Your task to perform on an android device: open app "NewsBreak: Local News & Alerts" Image 0: 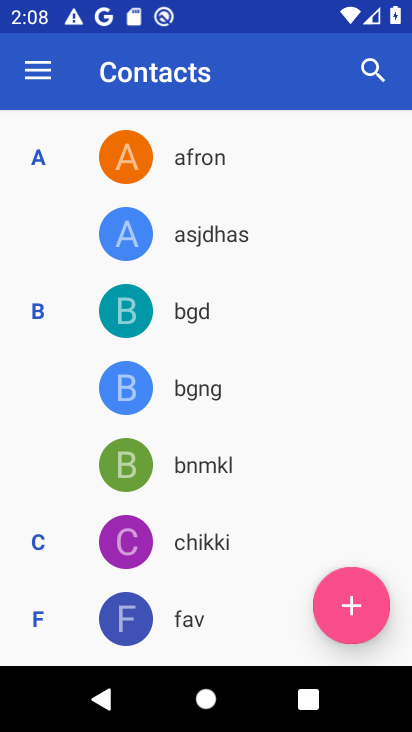
Step 0: press home button
Your task to perform on an android device: open app "NewsBreak: Local News & Alerts" Image 1: 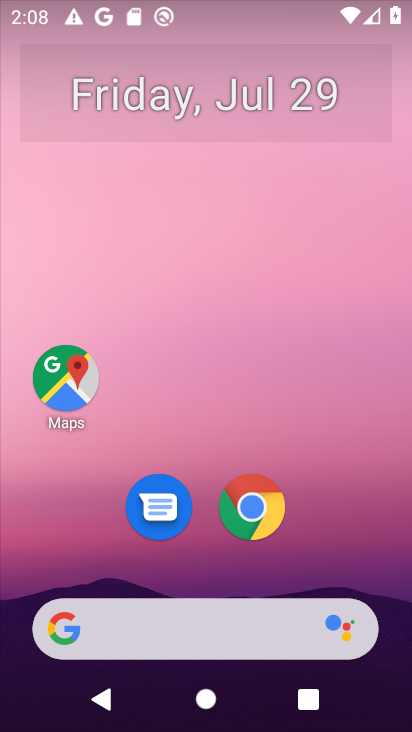
Step 1: drag from (208, 569) to (216, 192)
Your task to perform on an android device: open app "NewsBreak: Local News & Alerts" Image 2: 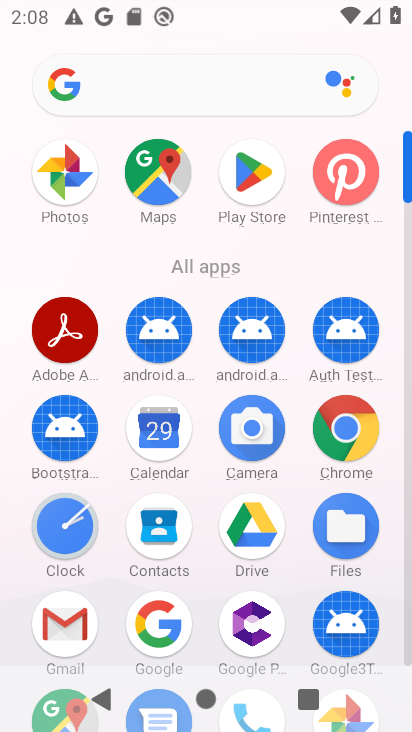
Step 2: click (243, 185)
Your task to perform on an android device: open app "NewsBreak: Local News & Alerts" Image 3: 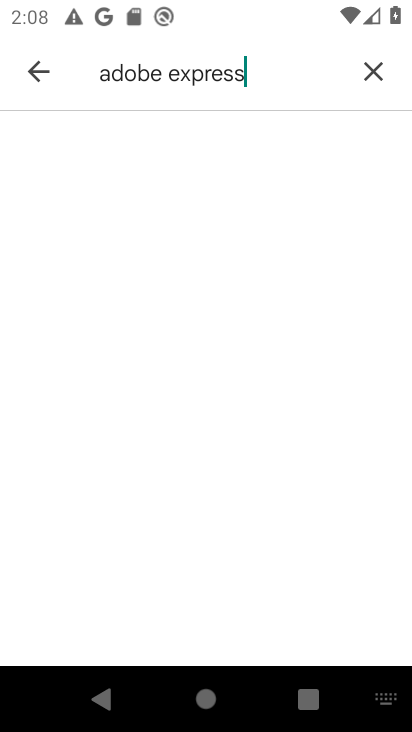
Step 3: click (368, 72)
Your task to perform on an android device: open app "NewsBreak: Local News & Alerts" Image 4: 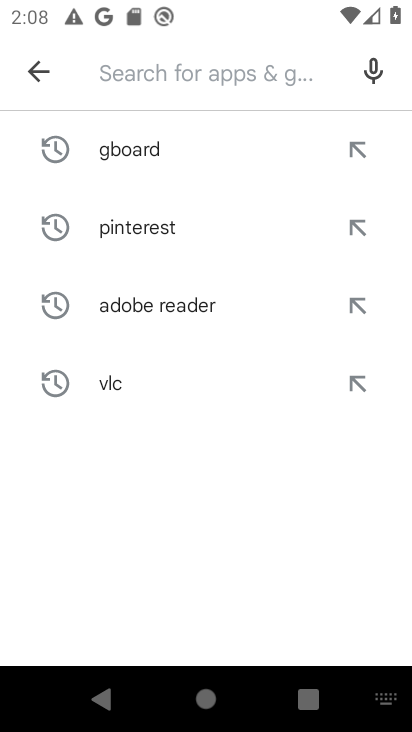
Step 4: click (52, 82)
Your task to perform on an android device: open app "NewsBreak: Local News & Alerts" Image 5: 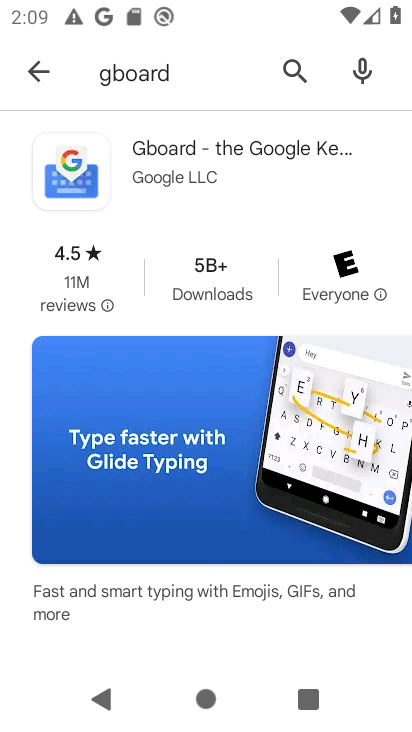
Step 5: click (54, 74)
Your task to perform on an android device: open app "NewsBreak: Local News & Alerts" Image 6: 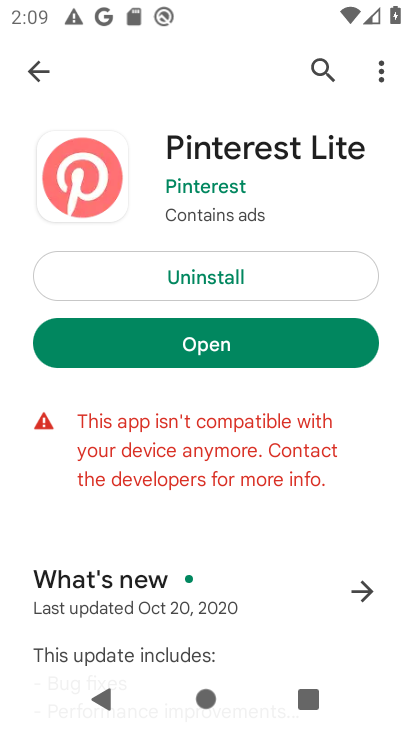
Step 6: click (327, 65)
Your task to perform on an android device: open app "NewsBreak: Local News & Alerts" Image 7: 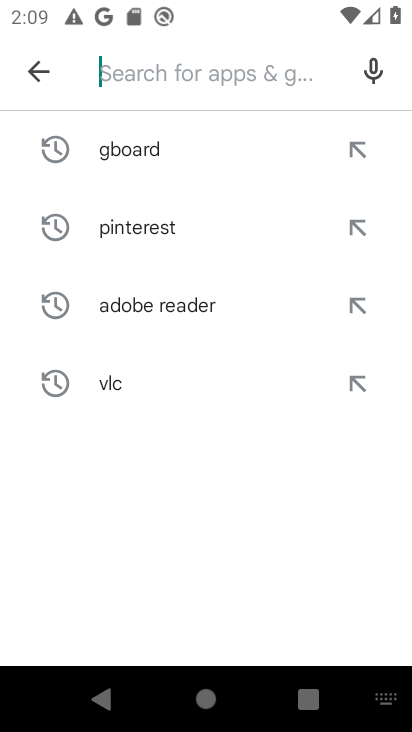
Step 7: type "newsbreak"
Your task to perform on an android device: open app "NewsBreak: Local News & Alerts" Image 8: 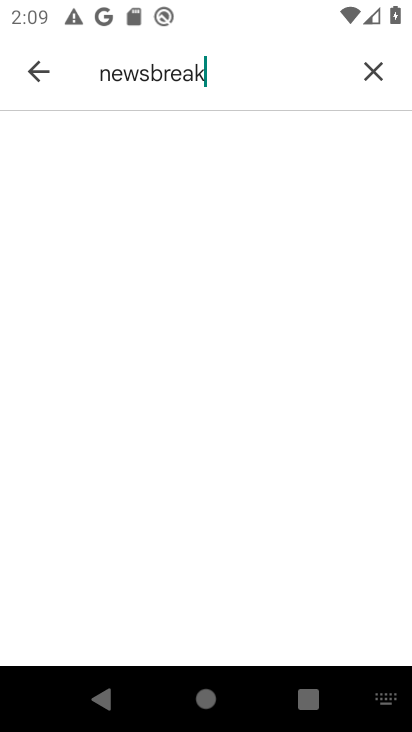
Step 8: task complete